Your task to perform on an android device: Show me popular games on the Play Store Image 0: 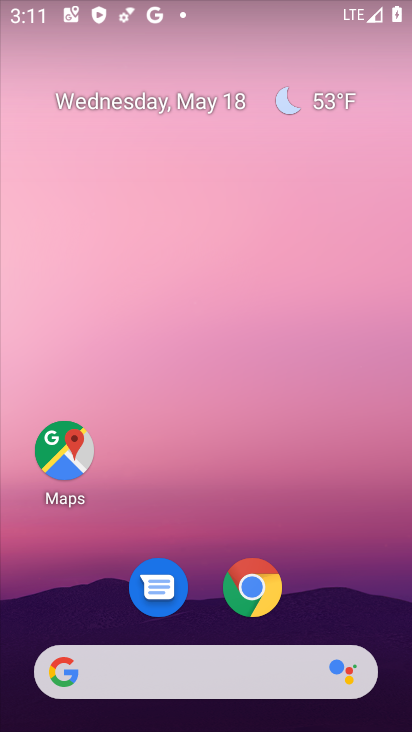
Step 0: drag from (253, 652) to (302, 138)
Your task to perform on an android device: Show me popular games on the Play Store Image 1: 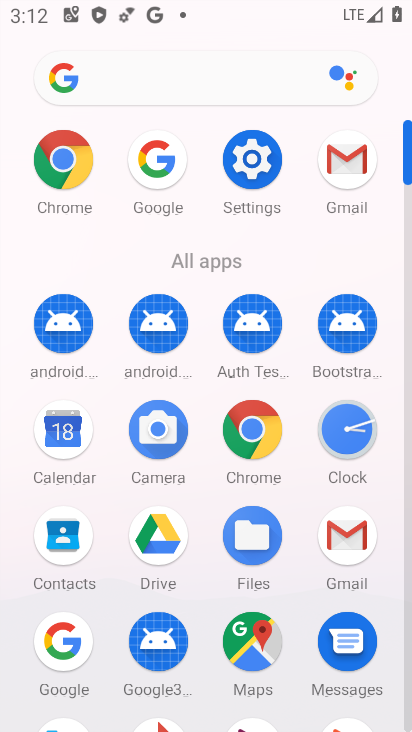
Step 1: drag from (270, 357) to (337, 51)
Your task to perform on an android device: Show me popular games on the Play Store Image 2: 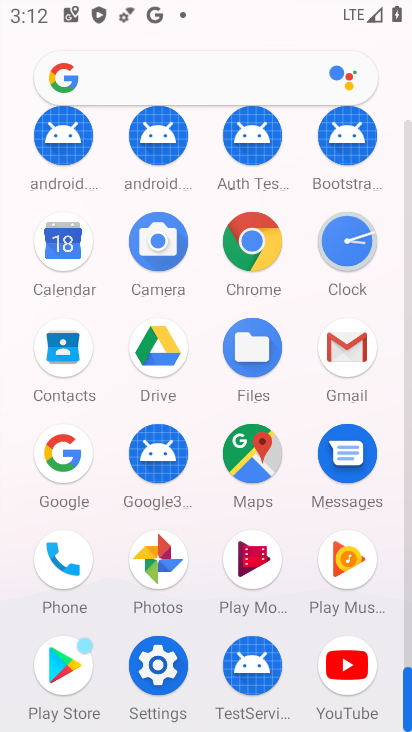
Step 2: click (71, 680)
Your task to perform on an android device: Show me popular games on the Play Store Image 3: 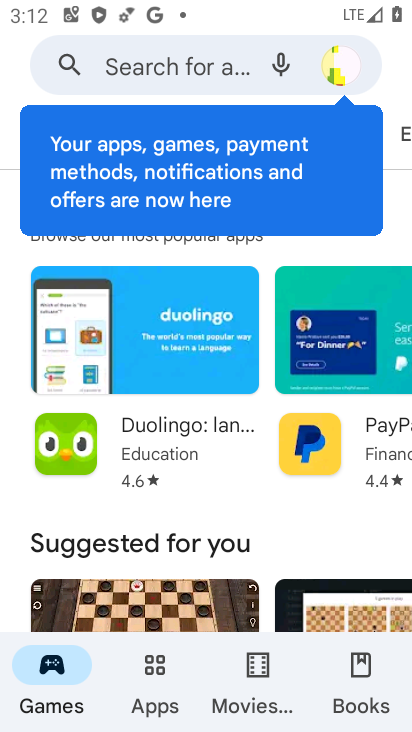
Step 3: task complete